Your task to perform on an android device: install app "Google Duo" Image 0: 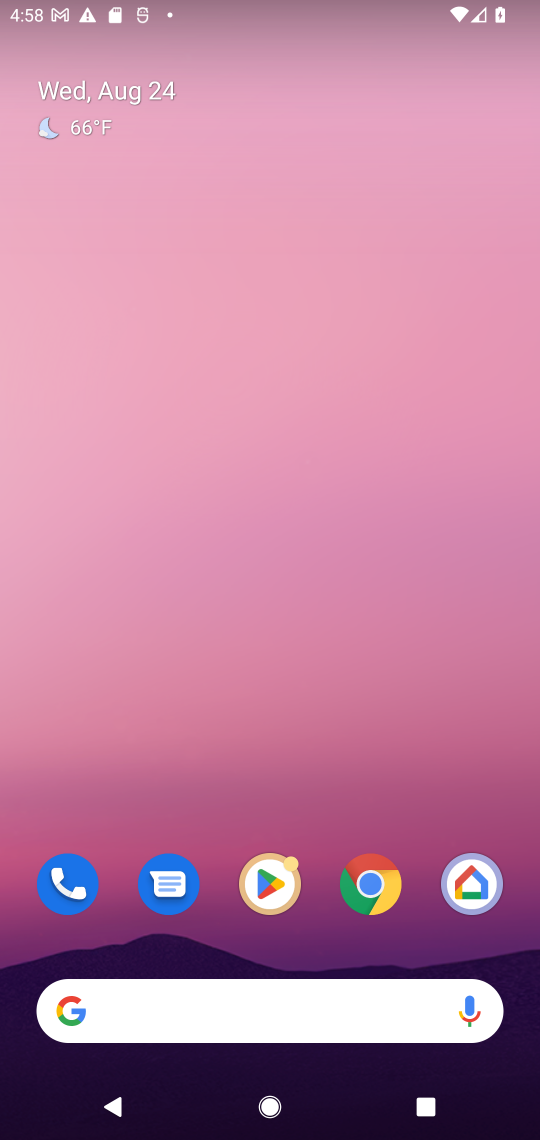
Step 0: click (268, 888)
Your task to perform on an android device: install app "Google Duo" Image 1: 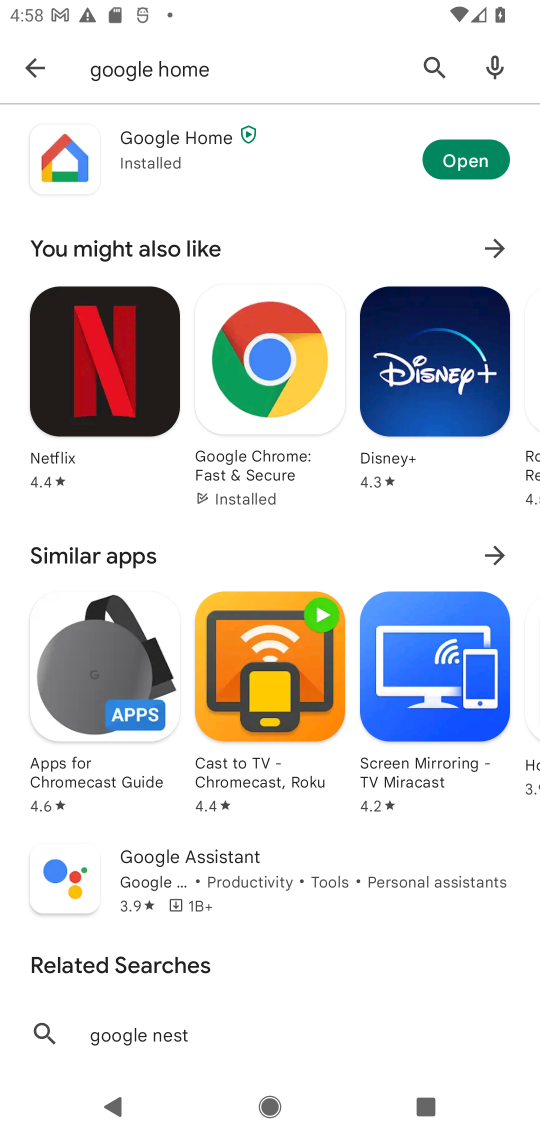
Step 1: click (32, 66)
Your task to perform on an android device: install app "Google Duo" Image 2: 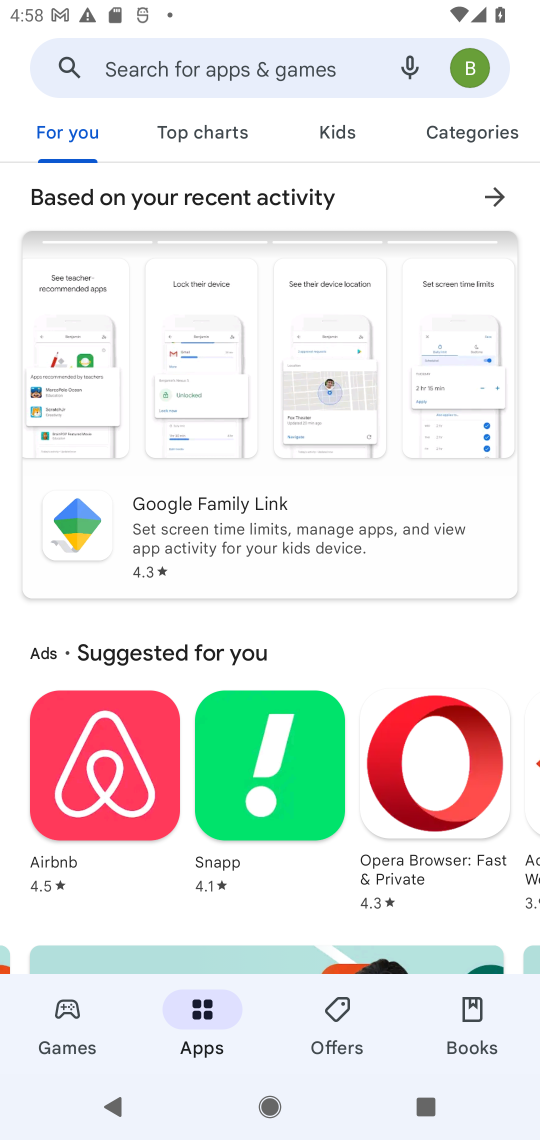
Step 2: click (281, 64)
Your task to perform on an android device: install app "Google Duo" Image 3: 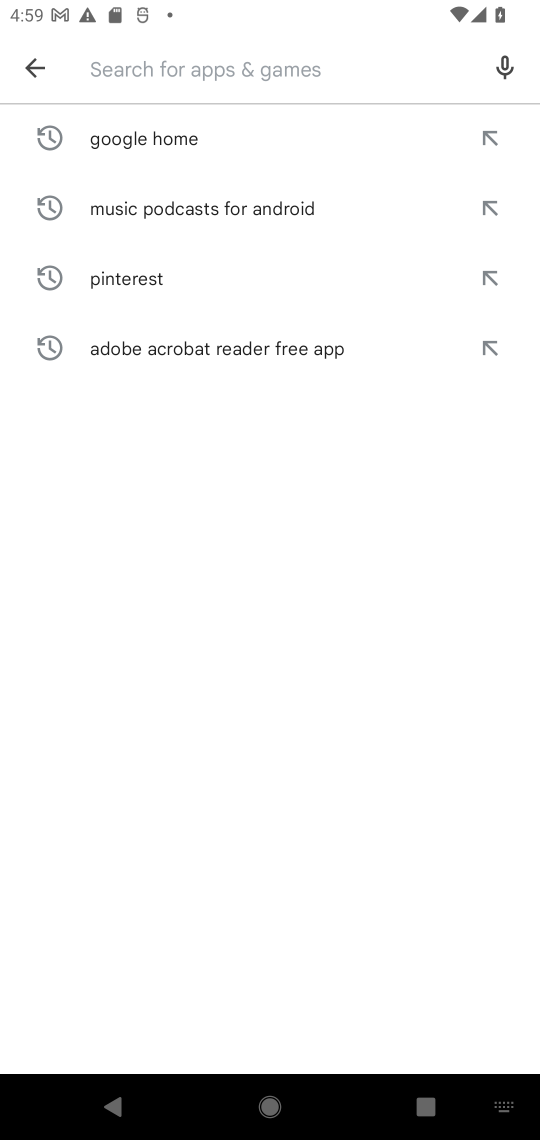
Step 3: type "Google Duo"
Your task to perform on an android device: install app "Google Duo" Image 4: 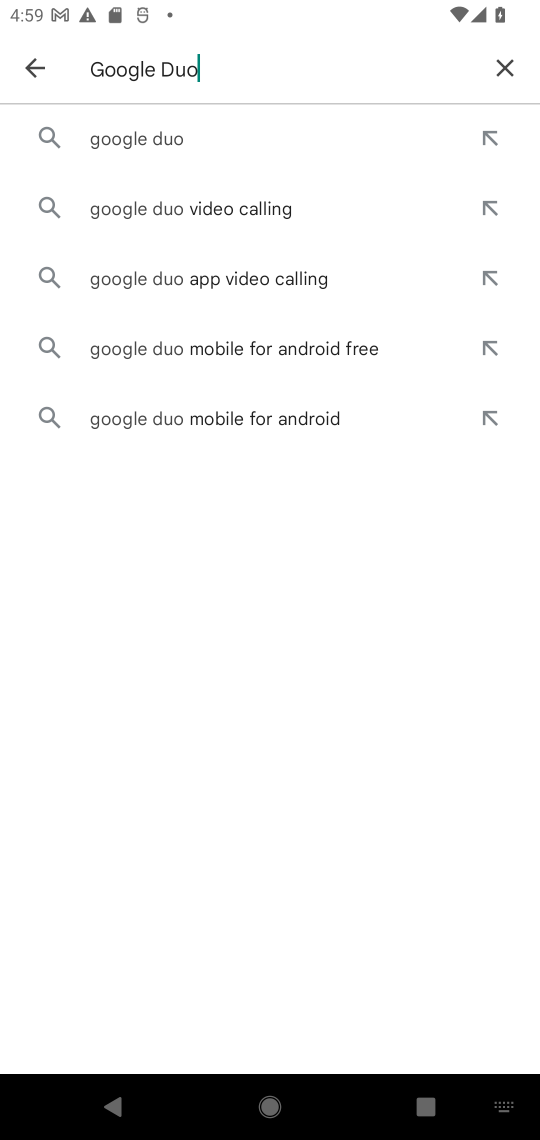
Step 4: click (153, 130)
Your task to perform on an android device: install app "Google Duo" Image 5: 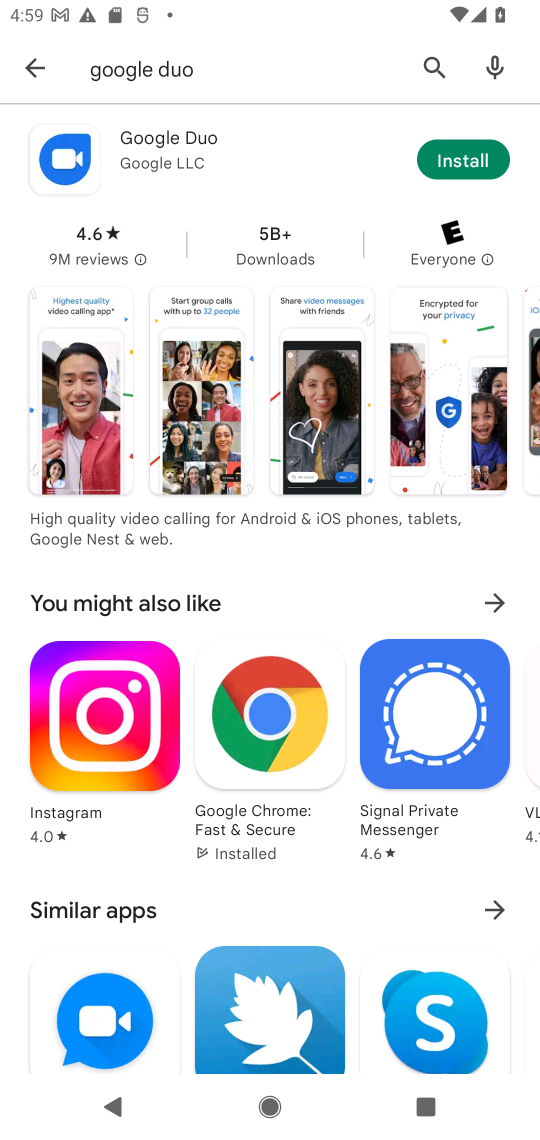
Step 5: click (448, 154)
Your task to perform on an android device: install app "Google Duo" Image 6: 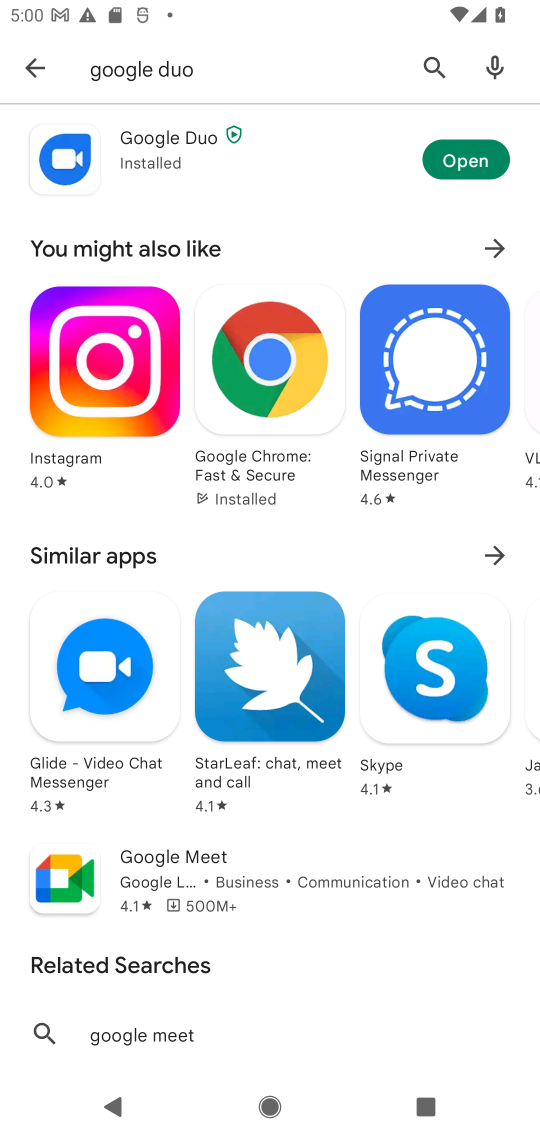
Step 6: click (463, 154)
Your task to perform on an android device: install app "Google Duo" Image 7: 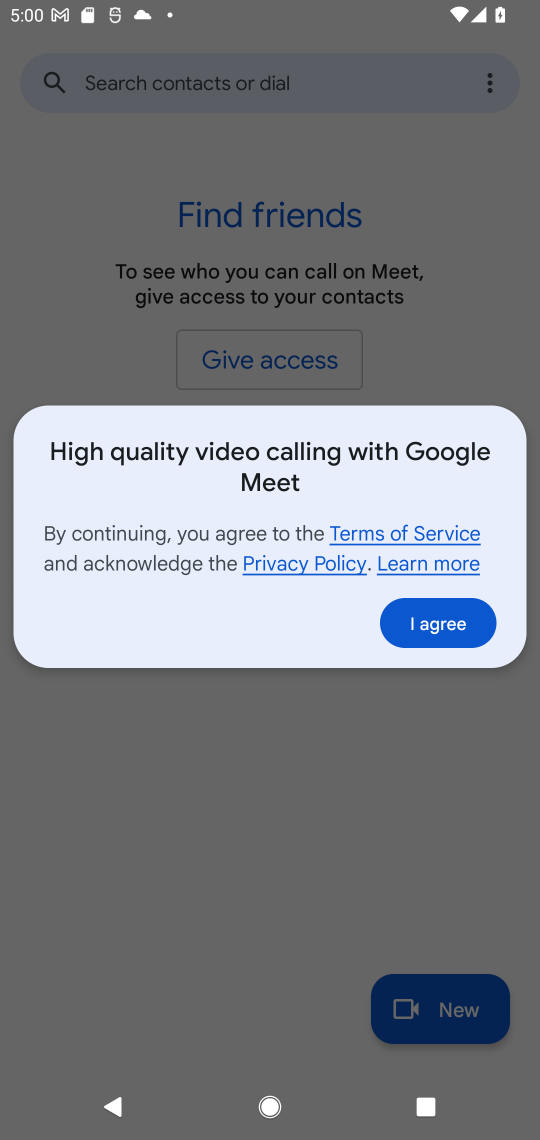
Step 7: task complete